Your task to perform on an android device: Go to wifi settings Image 0: 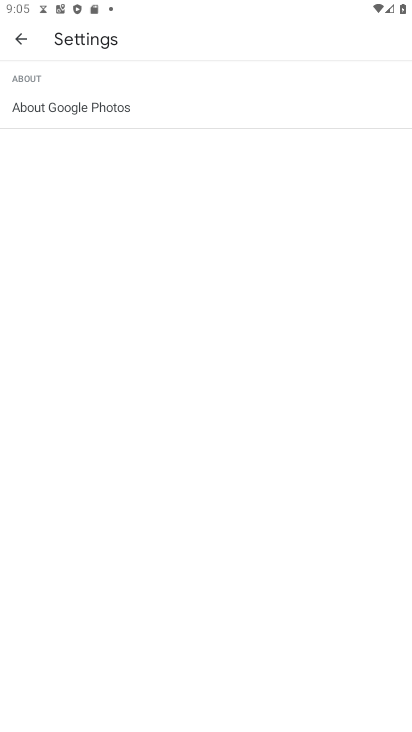
Step 0: press home button
Your task to perform on an android device: Go to wifi settings Image 1: 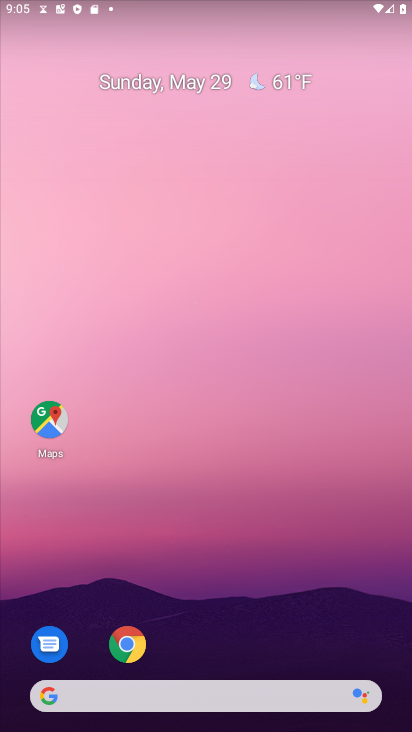
Step 1: drag from (230, 683) to (261, 106)
Your task to perform on an android device: Go to wifi settings Image 2: 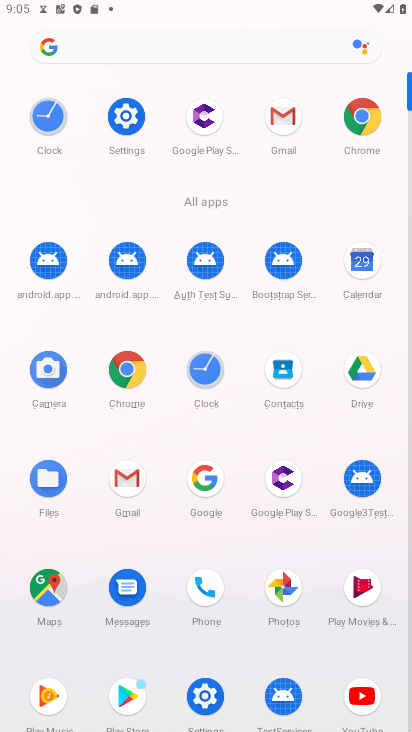
Step 2: click (122, 110)
Your task to perform on an android device: Go to wifi settings Image 3: 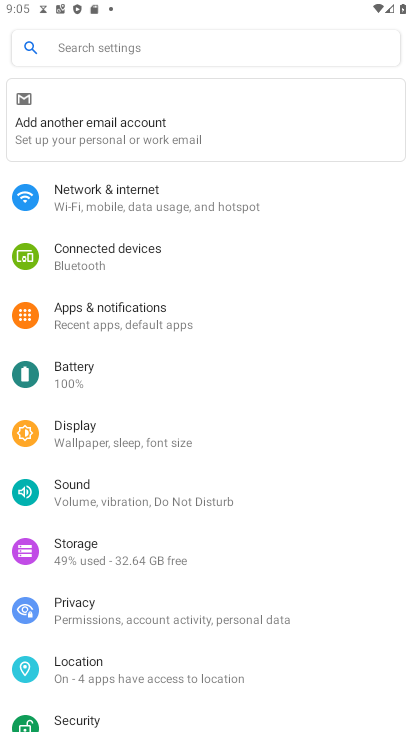
Step 3: click (131, 197)
Your task to perform on an android device: Go to wifi settings Image 4: 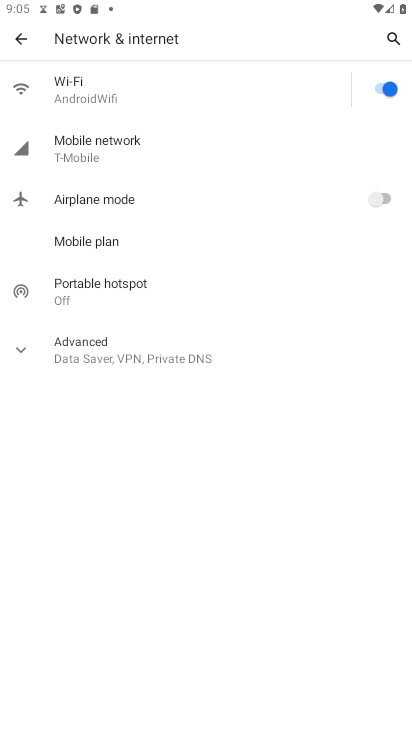
Step 4: click (74, 88)
Your task to perform on an android device: Go to wifi settings Image 5: 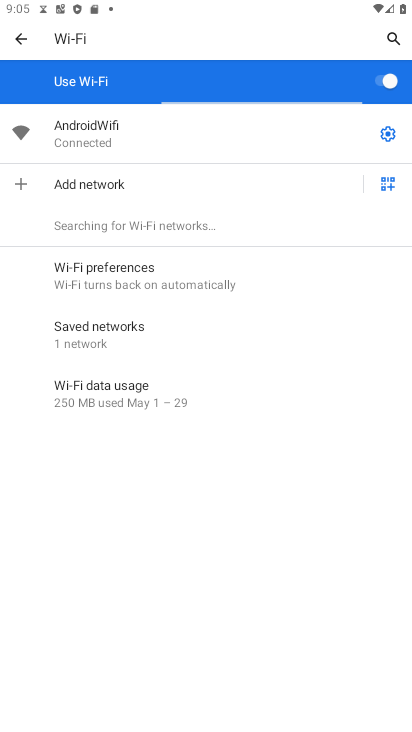
Step 5: task complete